Your task to perform on an android device: What's the weather going to be this weekend? Image 0: 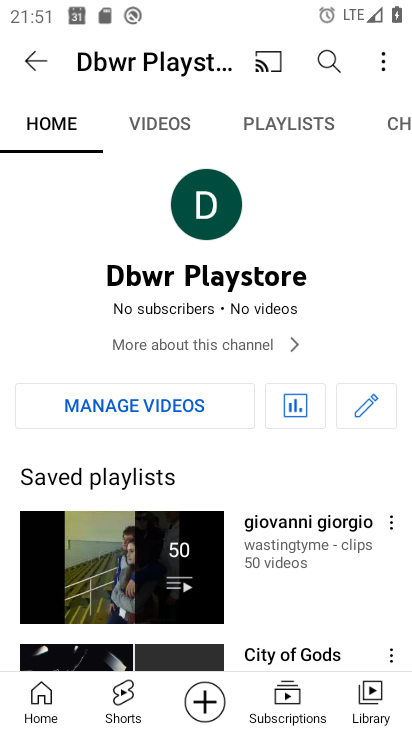
Step 0: press home button
Your task to perform on an android device: What's the weather going to be this weekend? Image 1: 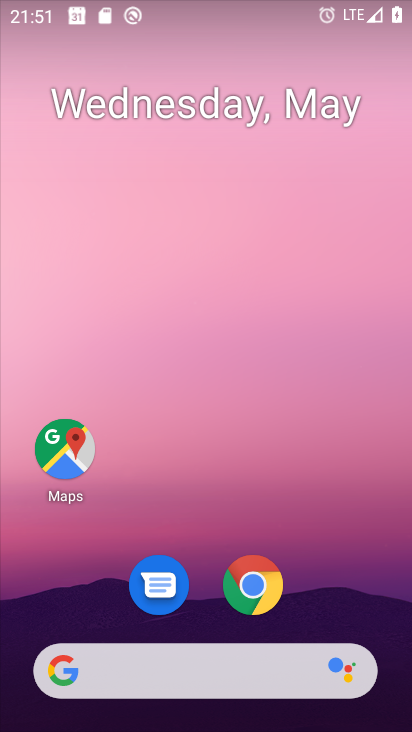
Step 1: click (245, 670)
Your task to perform on an android device: What's the weather going to be this weekend? Image 2: 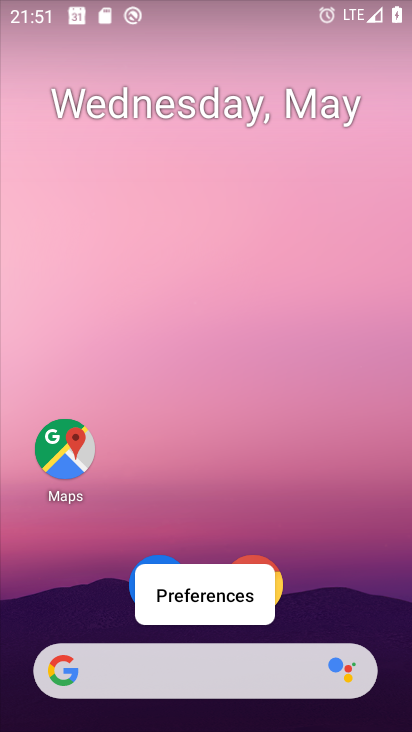
Step 2: click (209, 669)
Your task to perform on an android device: What's the weather going to be this weekend? Image 3: 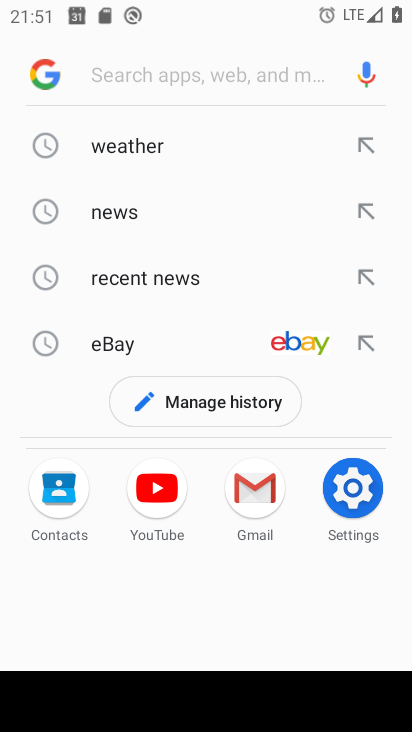
Step 3: click (122, 140)
Your task to perform on an android device: What's the weather going to be this weekend? Image 4: 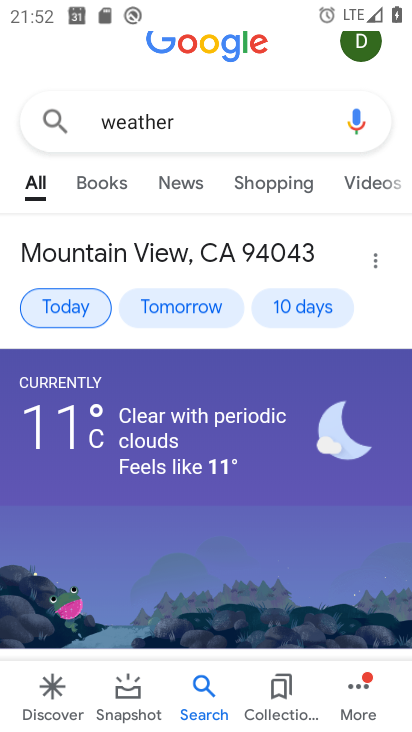
Step 4: click (88, 306)
Your task to perform on an android device: What's the weather going to be this weekend? Image 5: 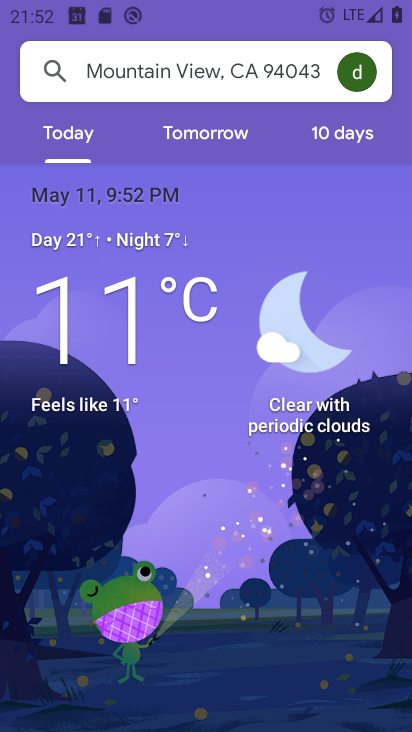
Step 5: click (333, 134)
Your task to perform on an android device: What's the weather going to be this weekend? Image 6: 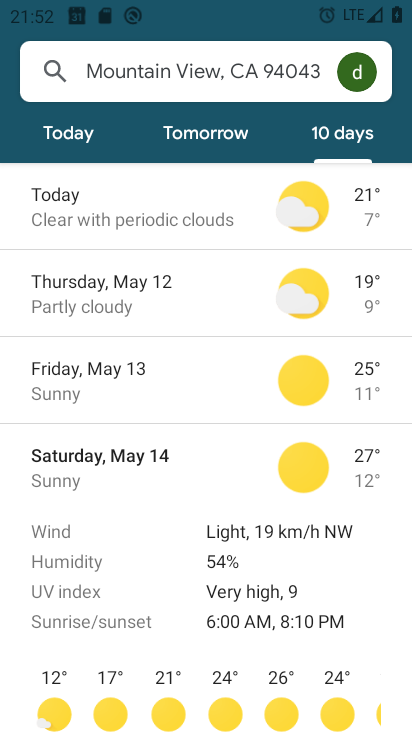
Step 6: task complete